Your task to perform on an android device: How do I get to the nearest McDonalds? Image 0: 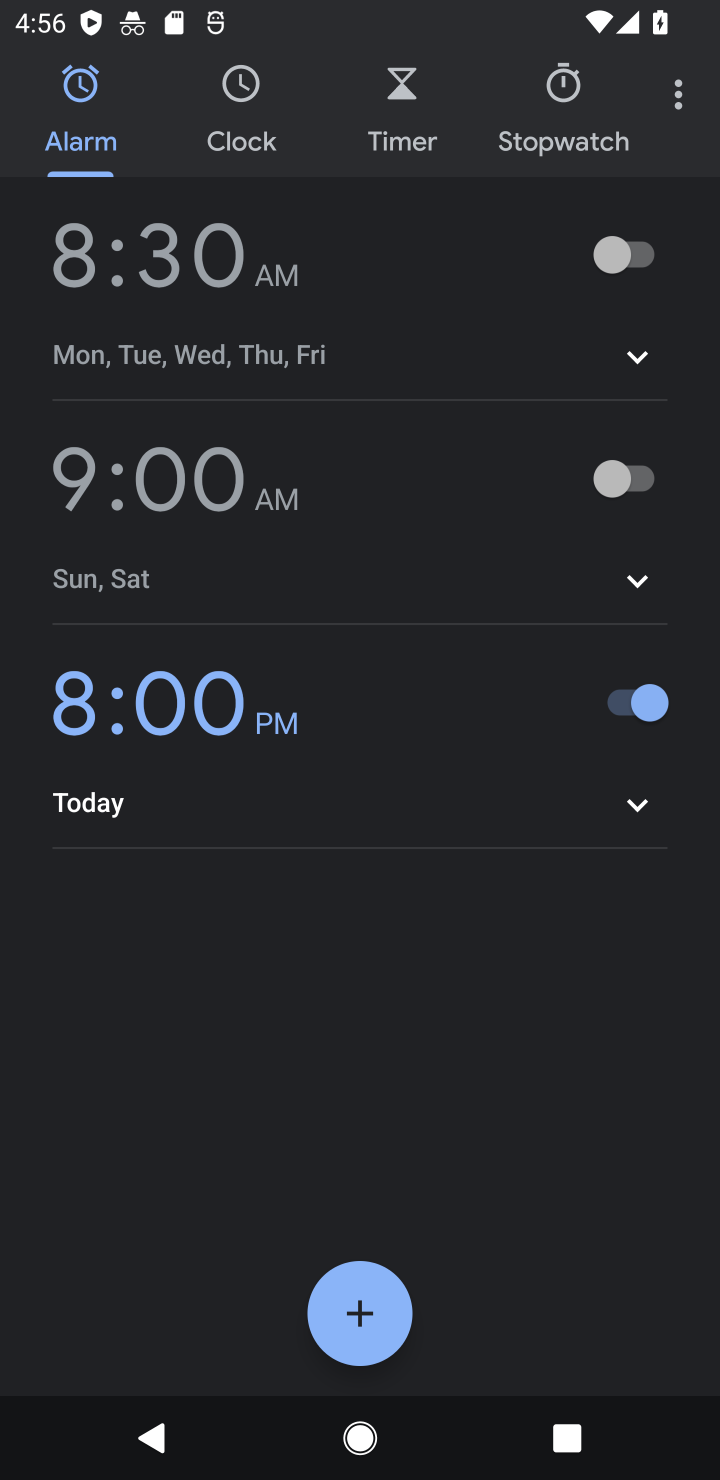
Step 0: press home button
Your task to perform on an android device: How do I get to the nearest McDonalds? Image 1: 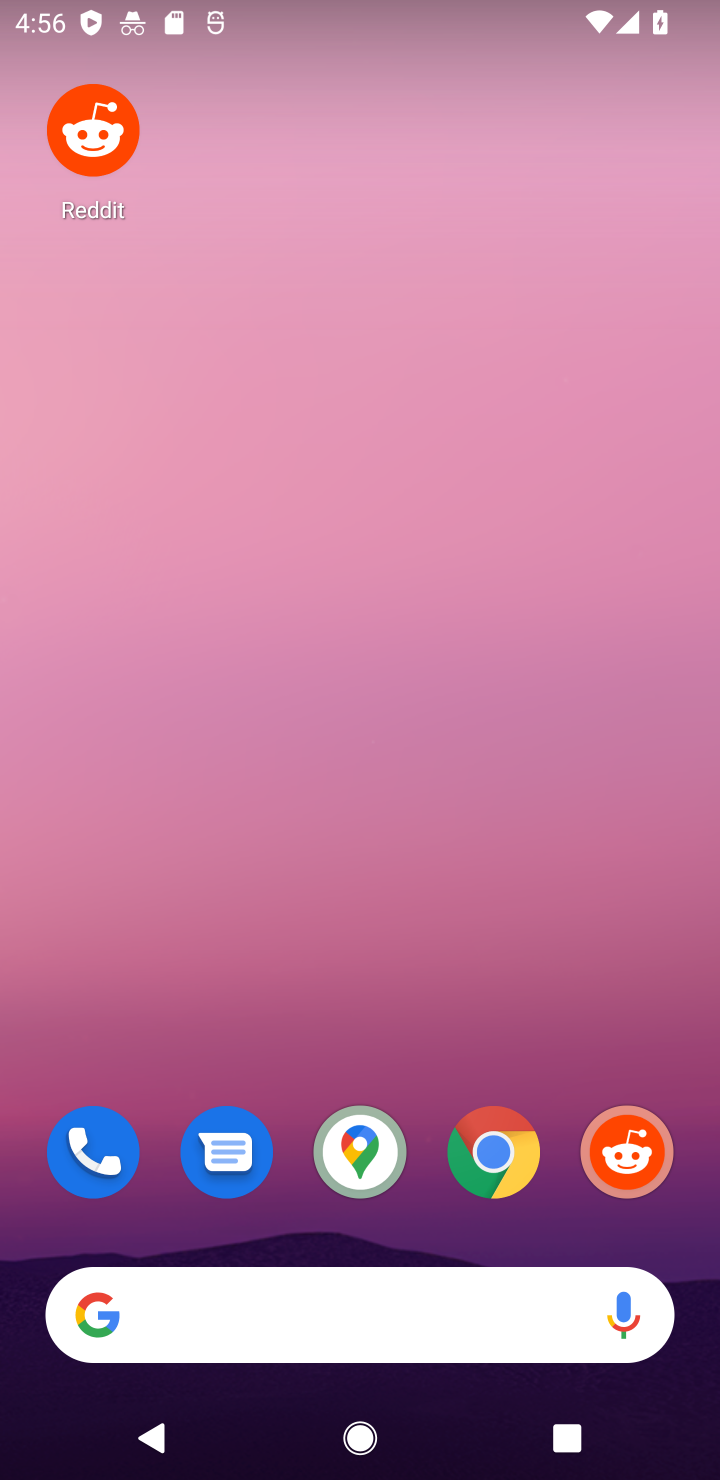
Step 1: click (493, 1152)
Your task to perform on an android device: How do I get to the nearest McDonalds? Image 2: 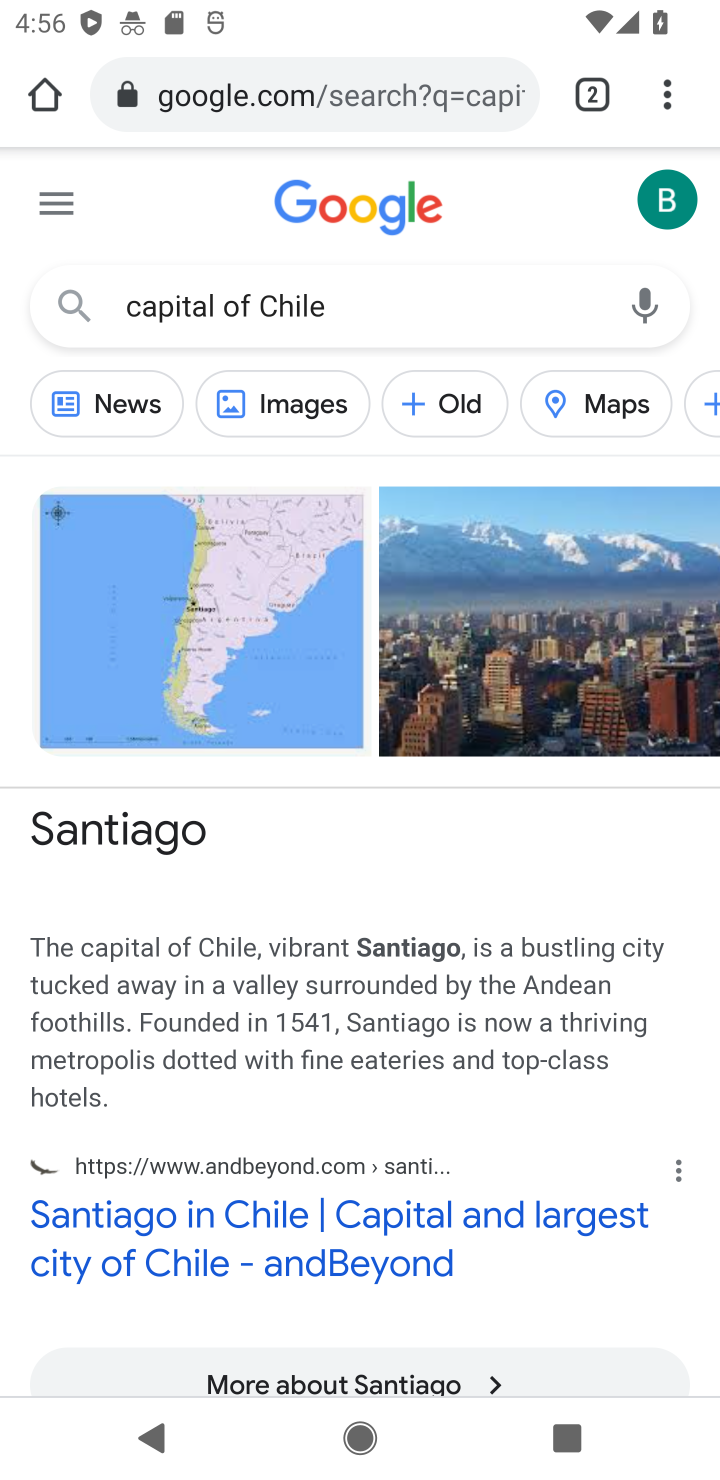
Step 2: click (378, 84)
Your task to perform on an android device: How do I get to the nearest McDonalds? Image 3: 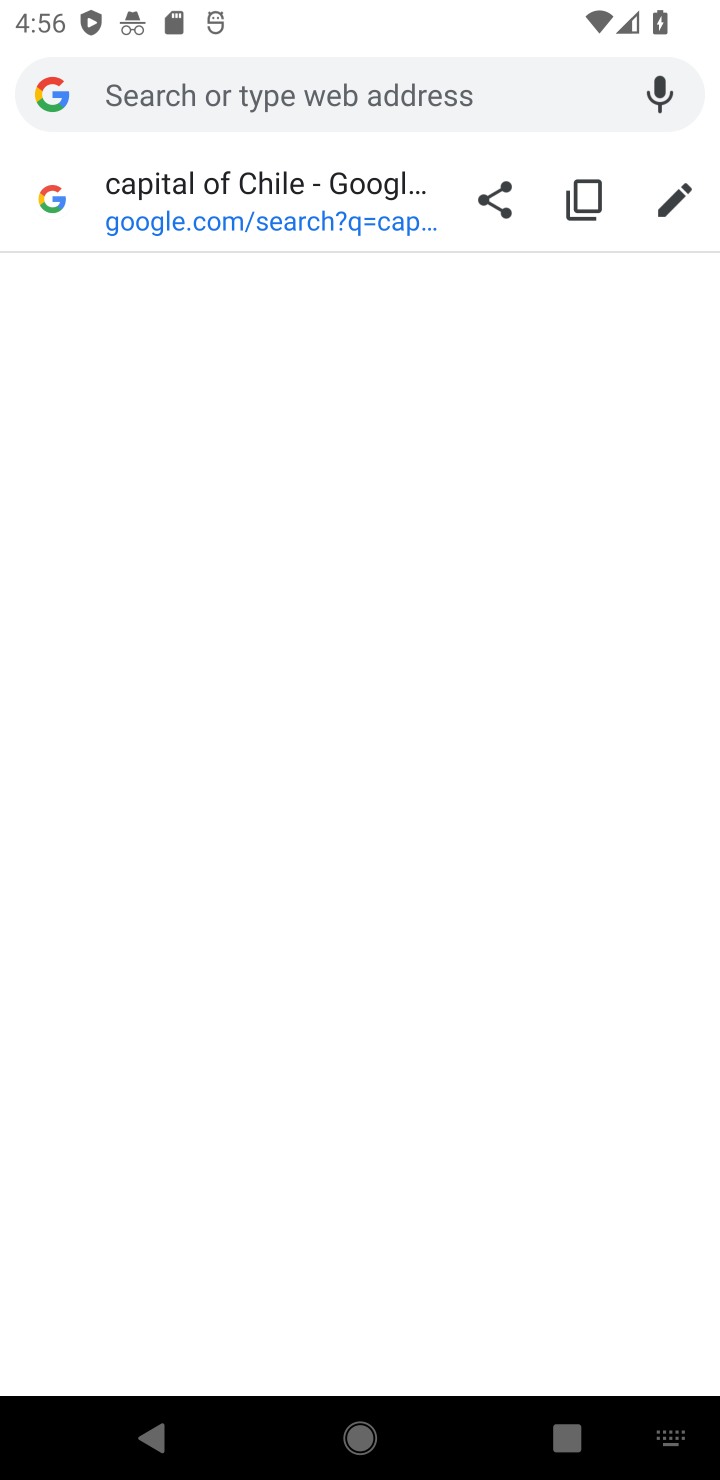
Step 3: type "nearest McDonalds"
Your task to perform on an android device: How do I get to the nearest McDonalds? Image 4: 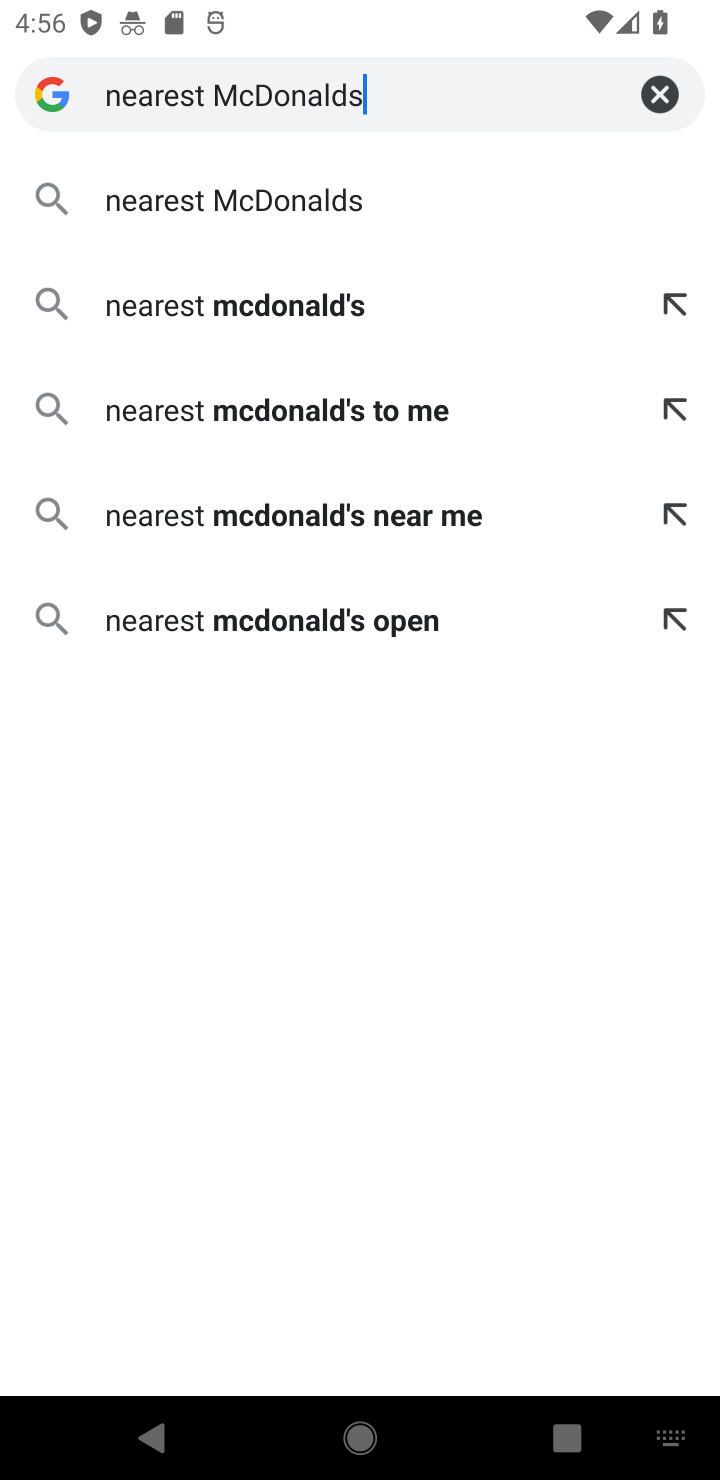
Step 4: click (241, 210)
Your task to perform on an android device: How do I get to the nearest McDonalds? Image 5: 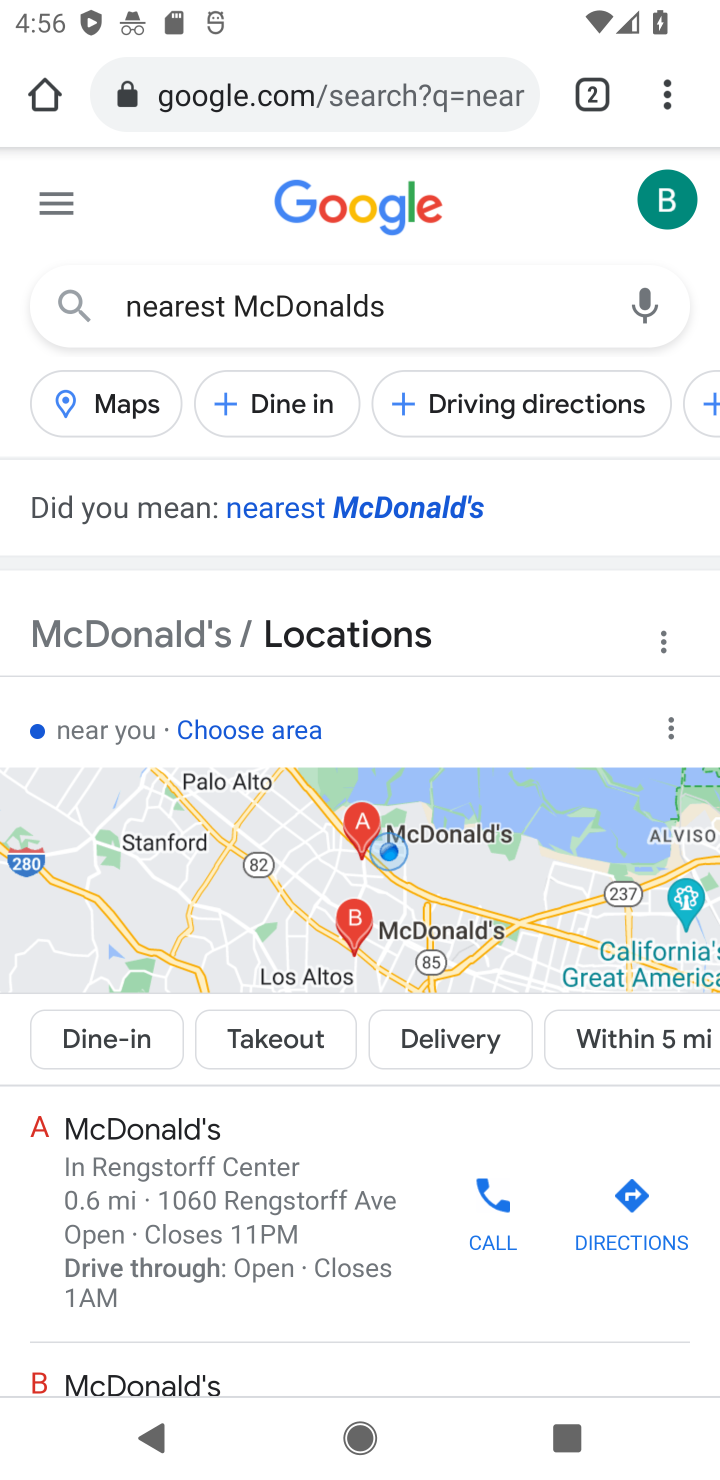
Step 5: task complete